Your task to perform on an android device: Open the map Image 0: 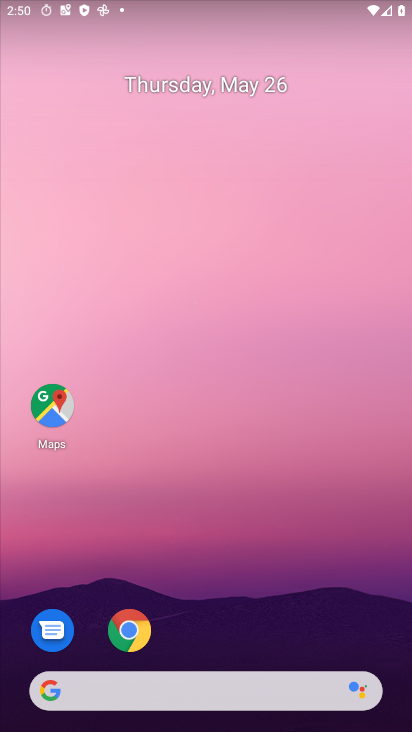
Step 0: click (43, 410)
Your task to perform on an android device: Open the map Image 1: 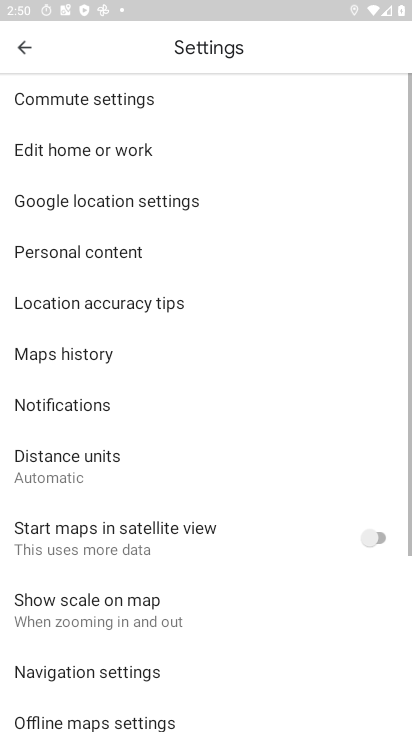
Step 1: task complete